Your task to perform on an android device: Open internet settings Image 0: 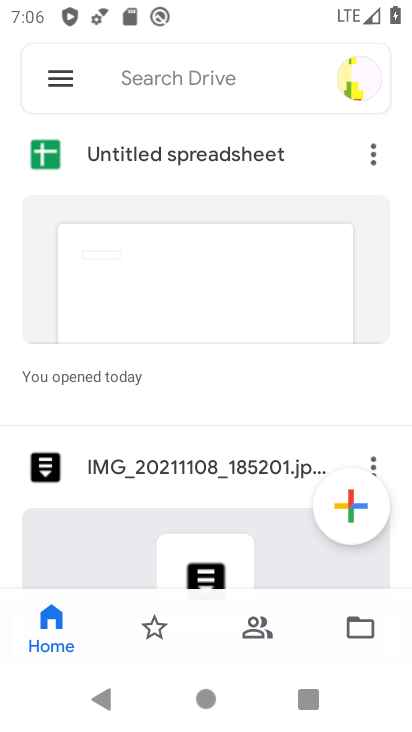
Step 0: press home button
Your task to perform on an android device: Open internet settings Image 1: 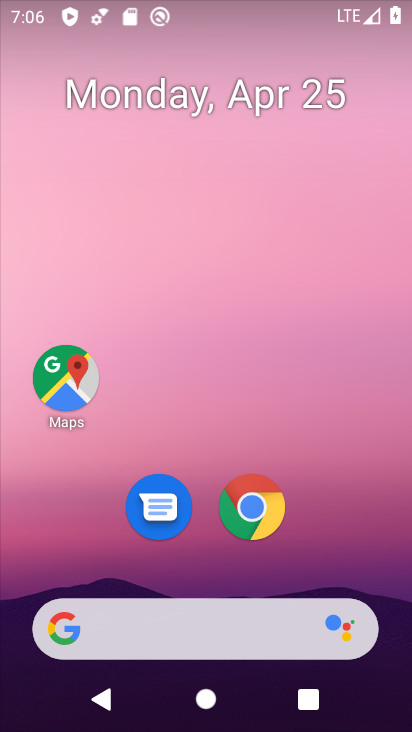
Step 1: drag from (368, 551) to (284, 79)
Your task to perform on an android device: Open internet settings Image 2: 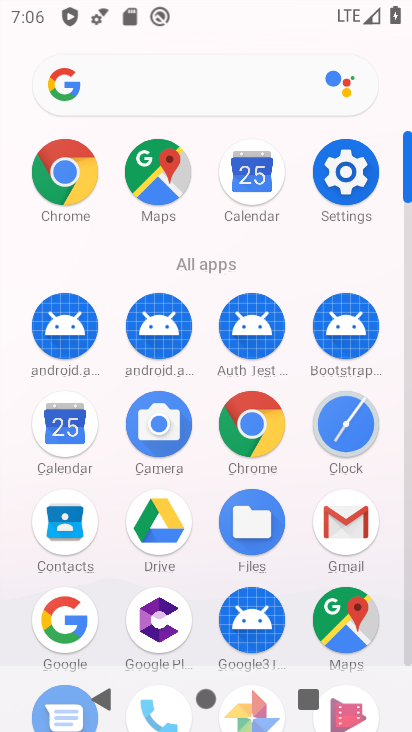
Step 2: click (406, 635)
Your task to perform on an android device: Open internet settings Image 3: 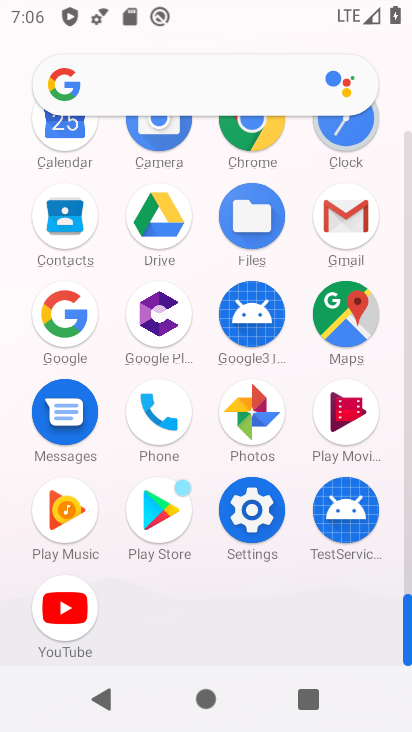
Step 3: click (250, 531)
Your task to perform on an android device: Open internet settings Image 4: 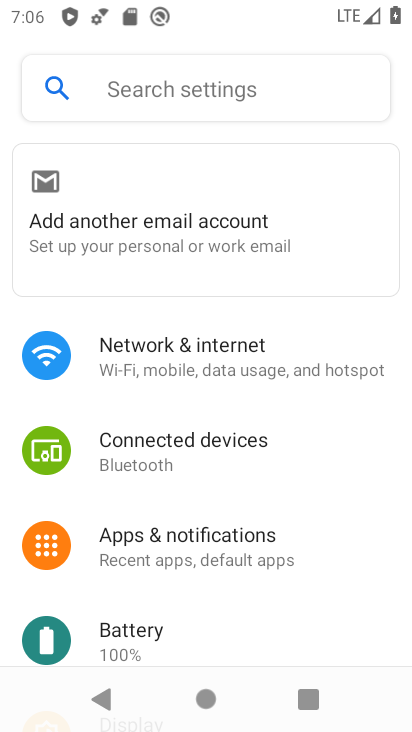
Step 4: click (265, 355)
Your task to perform on an android device: Open internet settings Image 5: 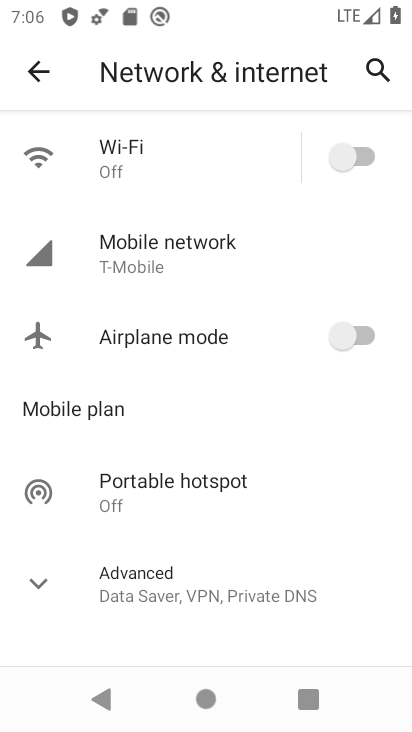
Step 5: task complete